Your task to perform on an android device: move an email to a new category in the gmail app Image 0: 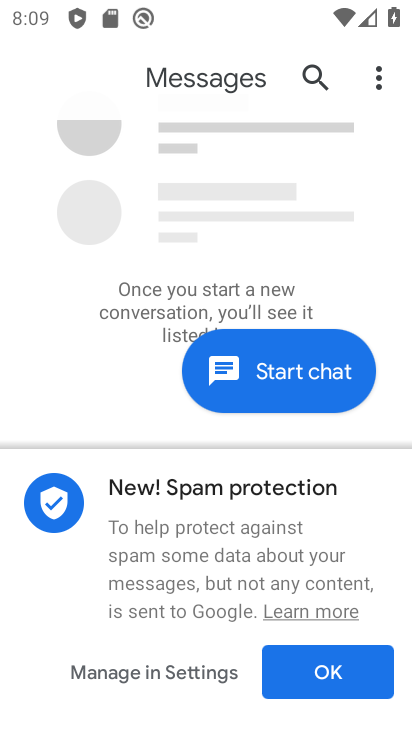
Step 0: press home button
Your task to perform on an android device: move an email to a new category in the gmail app Image 1: 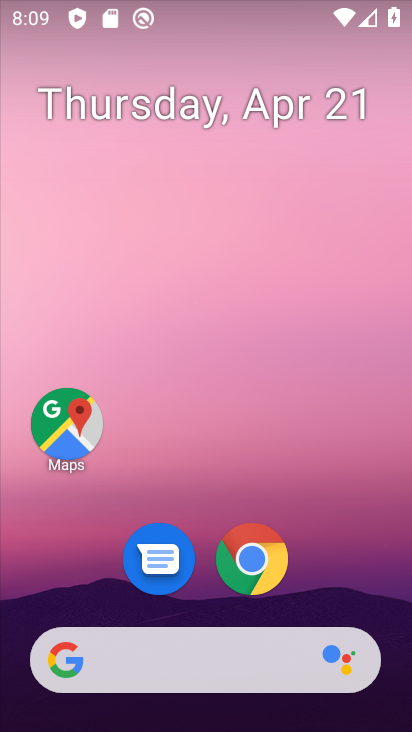
Step 1: drag from (340, 553) to (63, 726)
Your task to perform on an android device: move an email to a new category in the gmail app Image 2: 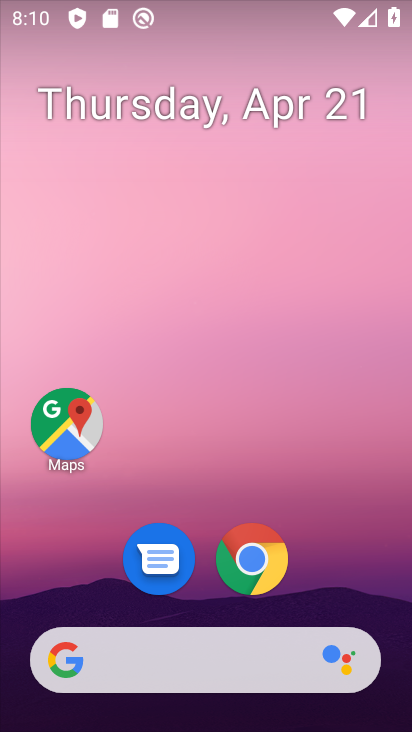
Step 2: drag from (363, 551) to (326, 144)
Your task to perform on an android device: move an email to a new category in the gmail app Image 3: 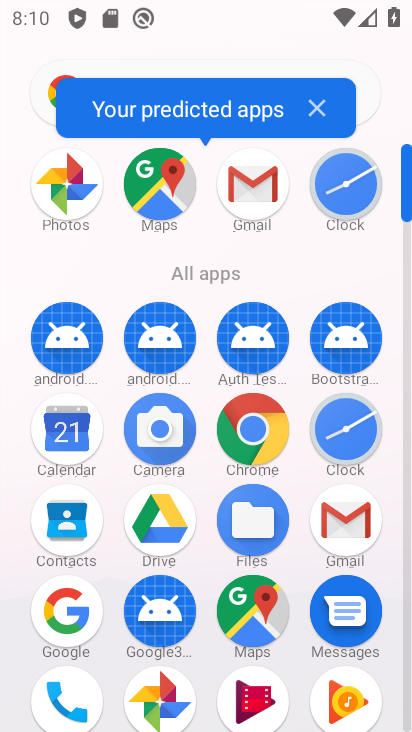
Step 3: click (266, 196)
Your task to perform on an android device: move an email to a new category in the gmail app Image 4: 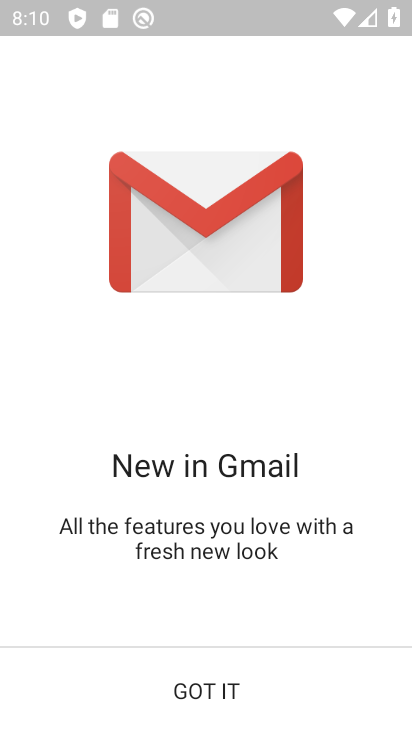
Step 4: click (212, 682)
Your task to perform on an android device: move an email to a new category in the gmail app Image 5: 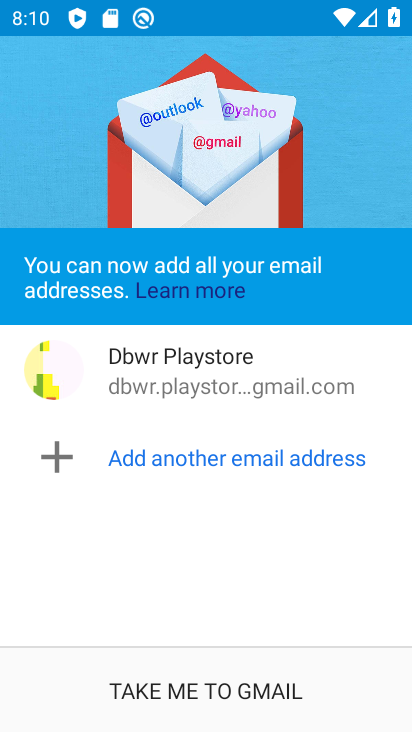
Step 5: click (208, 682)
Your task to perform on an android device: move an email to a new category in the gmail app Image 6: 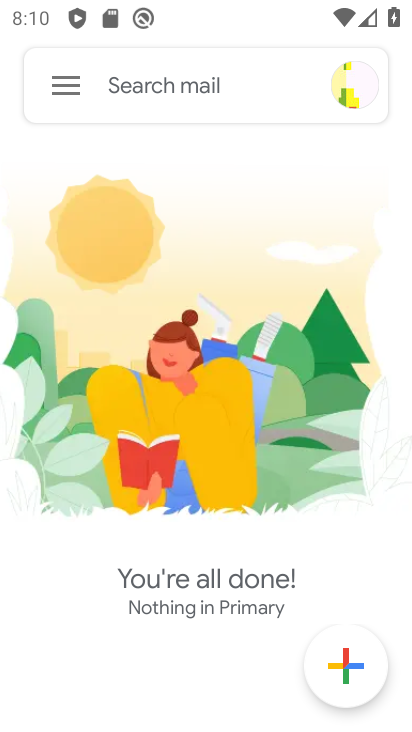
Step 6: click (58, 89)
Your task to perform on an android device: move an email to a new category in the gmail app Image 7: 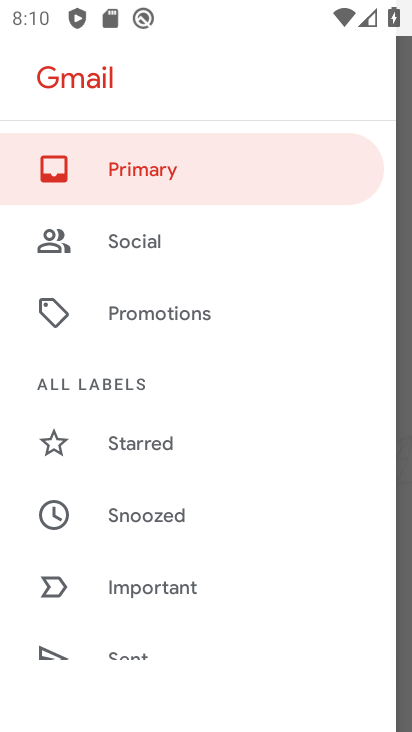
Step 7: drag from (272, 632) to (268, 109)
Your task to perform on an android device: move an email to a new category in the gmail app Image 8: 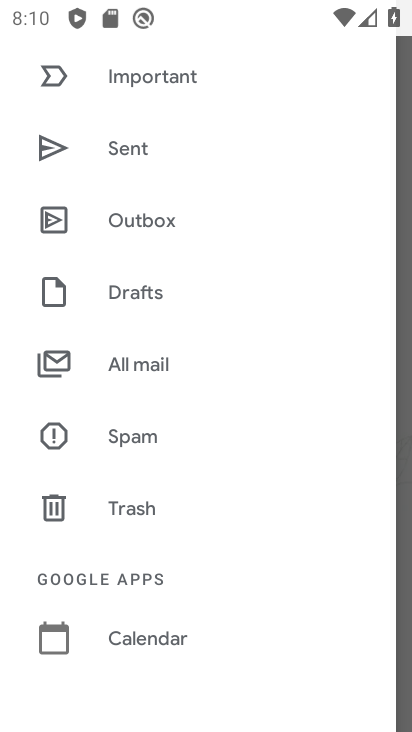
Step 8: click (221, 375)
Your task to perform on an android device: move an email to a new category in the gmail app Image 9: 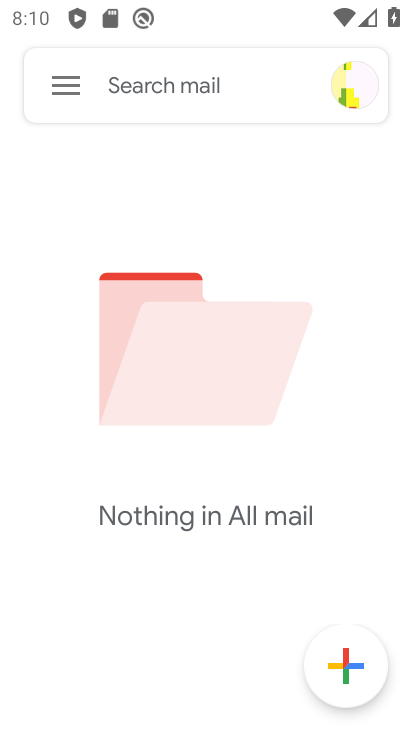
Step 9: task complete